Your task to perform on an android device: check out phone information Image 0: 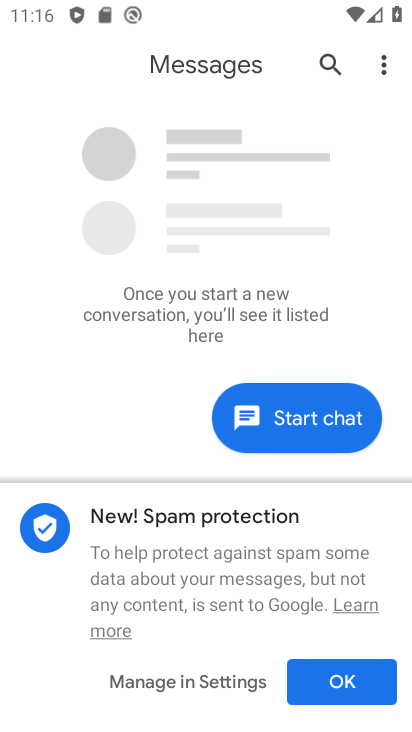
Step 0: press home button
Your task to perform on an android device: check out phone information Image 1: 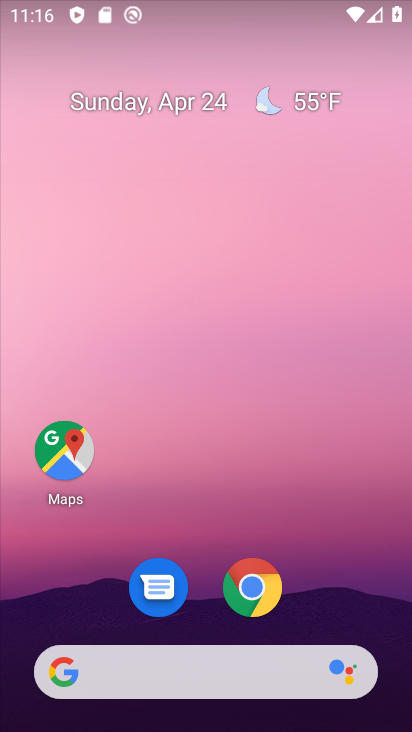
Step 1: drag from (353, 590) to (233, 9)
Your task to perform on an android device: check out phone information Image 2: 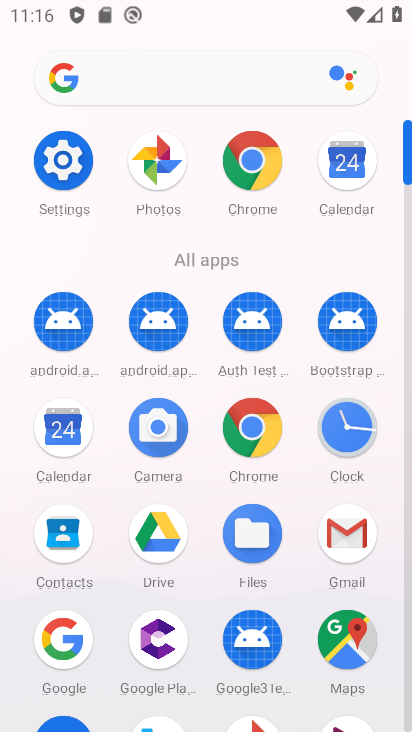
Step 2: click (61, 156)
Your task to perform on an android device: check out phone information Image 3: 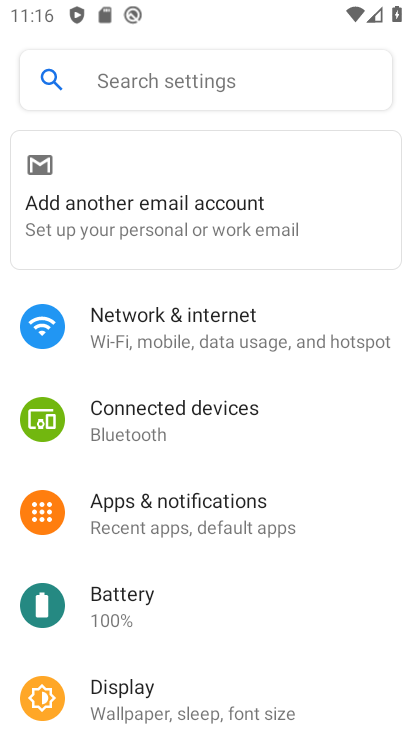
Step 3: drag from (190, 495) to (266, 65)
Your task to perform on an android device: check out phone information Image 4: 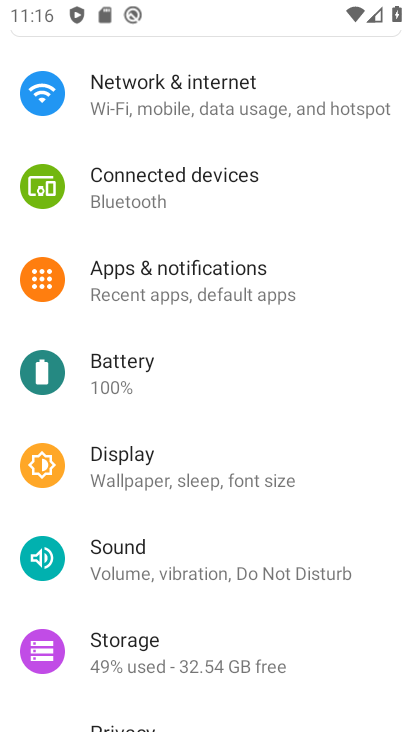
Step 4: drag from (253, 542) to (307, 10)
Your task to perform on an android device: check out phone information Image 5: 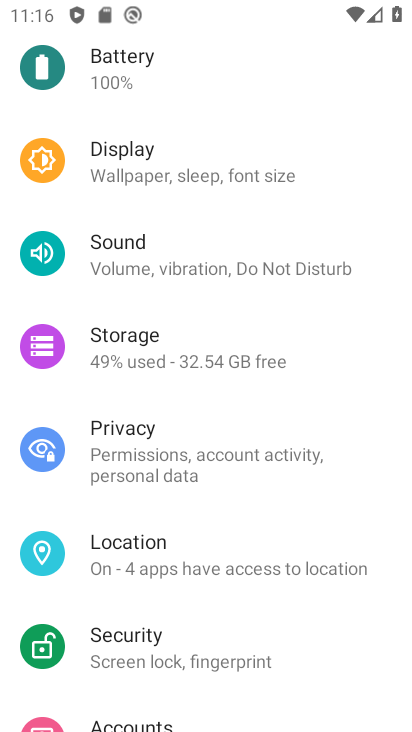
Step 5: drag from (195, 622) to (154, 32)
Your task to perform on an android device: check out phone information Image 6: 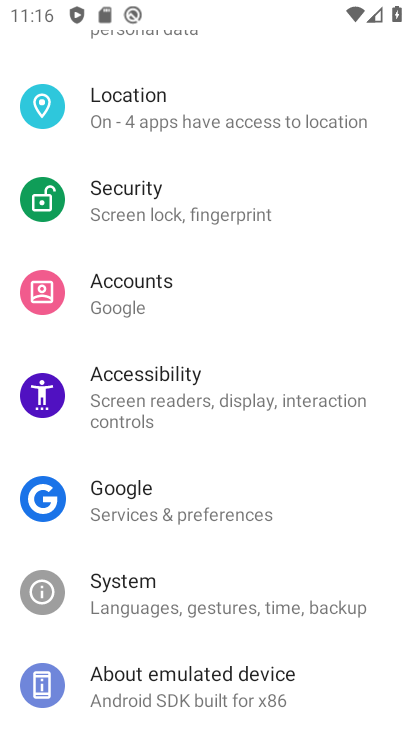
Step 6: drag from (181, 616) to (249, 48)
Your task to perform on an android device: check out phone information Image 7: 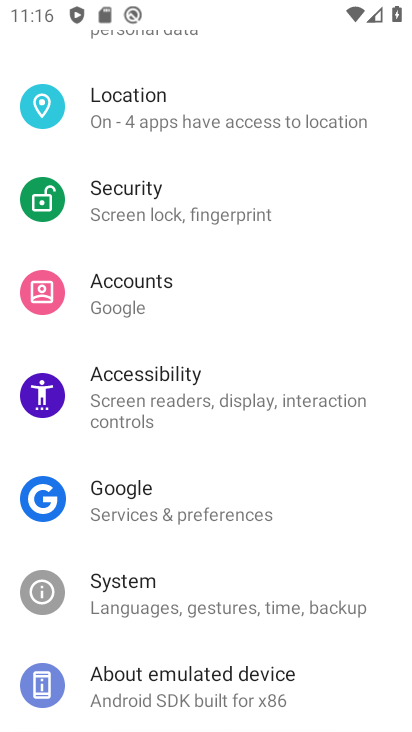
Step 7: click (181, 681)
Your task to perform on an android device: check out phone information Image 8: 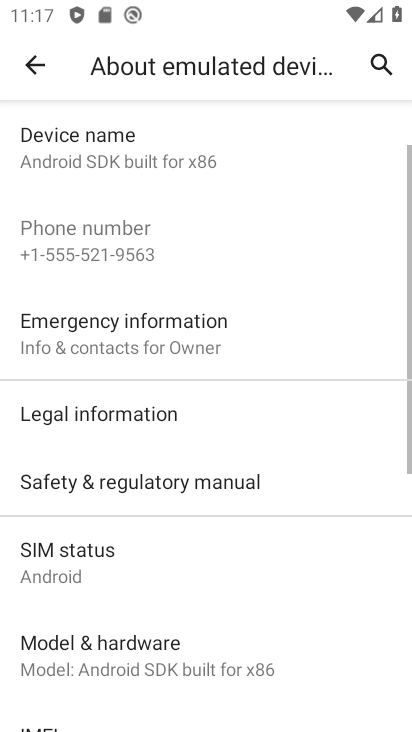
Step 8: drag from (245, 407) to (241, 633)
Your task to perform on an android device: check out phone information Image 9: 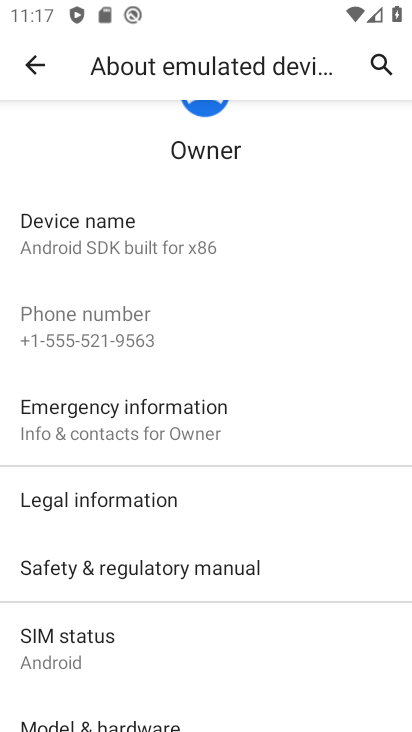
Step 9: drag from (229, 192) to (273, 597)
Your task to perform on an android device: check out phone information Image 10: 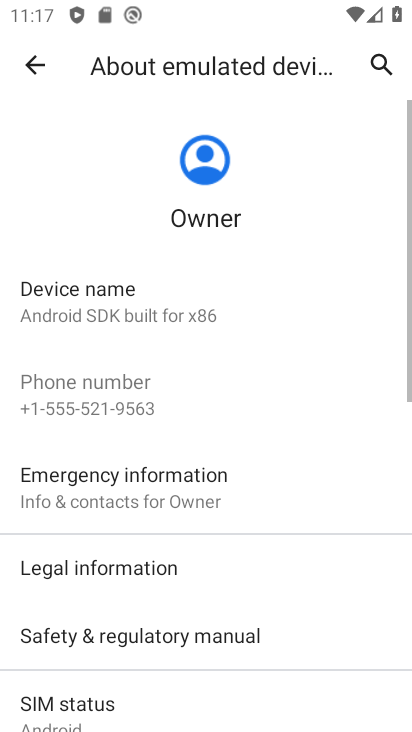
Step 10: drag from (189, 588) to (227, 79)
Your task to perform on an android device: check out phone information Image 11: 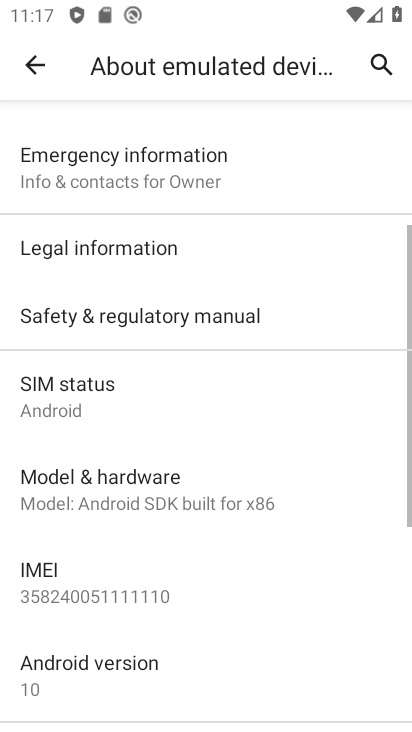
Step 11: drag from (198, 593) to (257, 135)
Your task to perform on an android device: check out phone information Image 12: 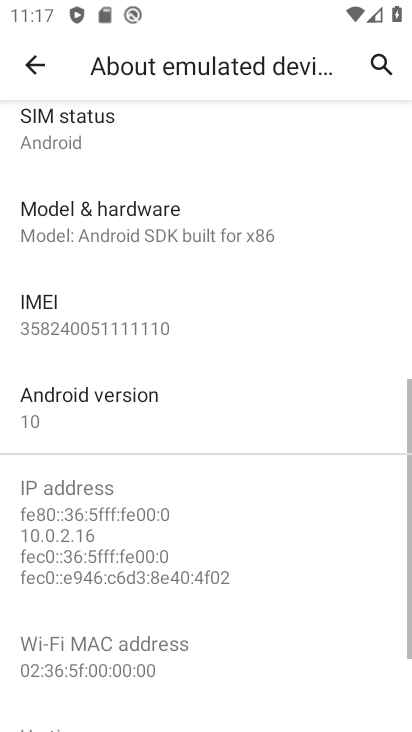
Step 12: drag from (153, 626) to (217, 158)
Your task to perform on an android device: check out phone information Image 13: 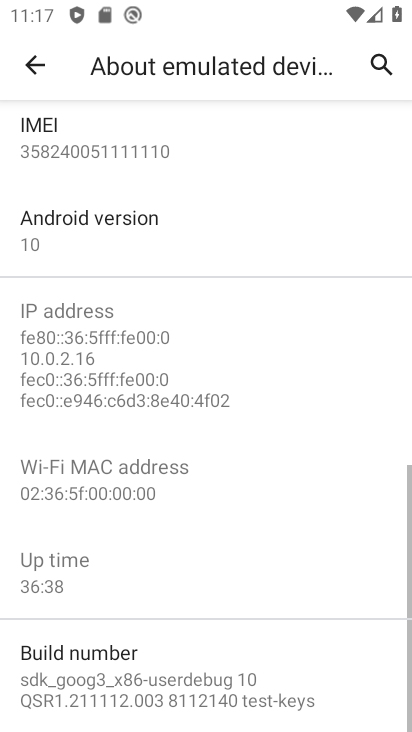
Step 13: click (95, 229)
Your task to perform on an android device: check out phone information Image 14: 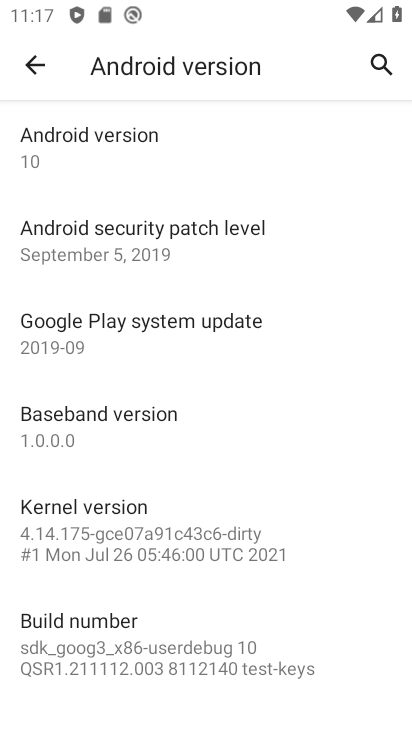
Step 14: click (79, 135)
Your task to perform on an android device: check out phone information Image 15: 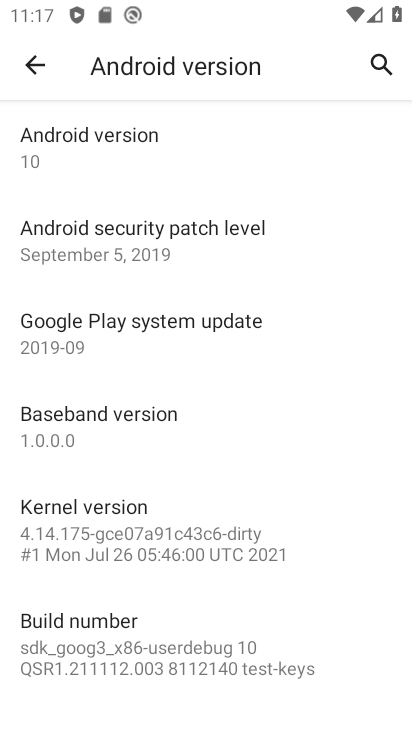
Step 15: click (79, 163)
Your task to perform on an android device: check out phone information Image 16: 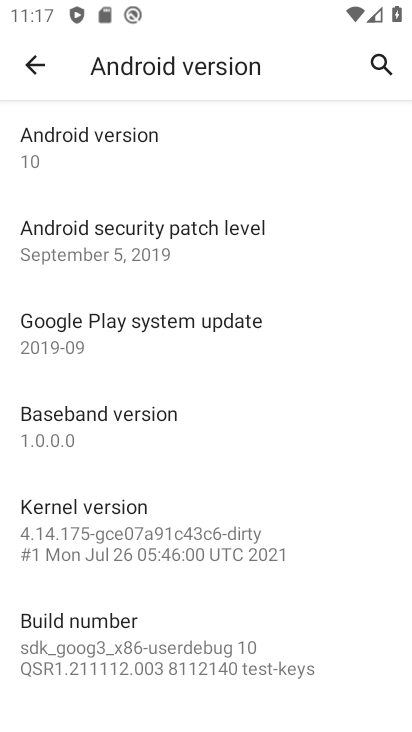
Step 16: click (129, 158)
Your task to perform on an android device: check out phone information Image 17: 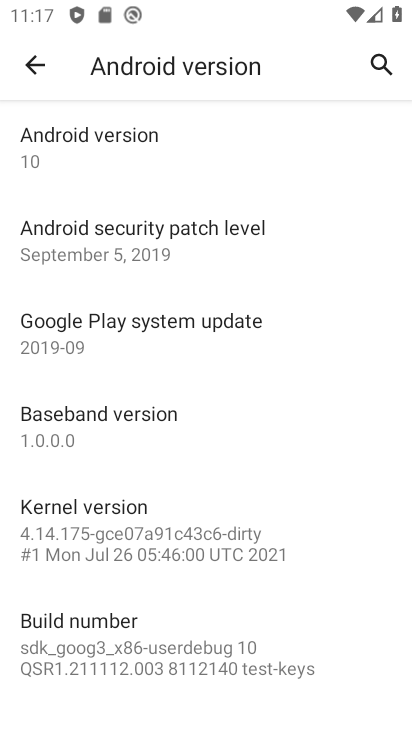
Step 17: task complete